Your task to perform on an android device: Do I have any events tomorrow? Image 0: 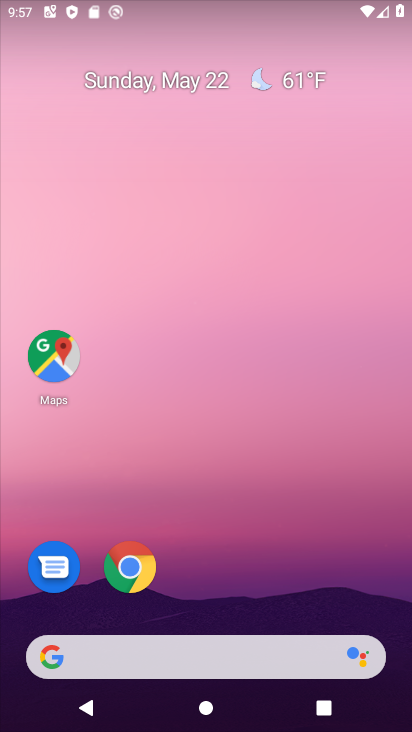
Step 0: drag from (218, 621) to (142, 37)
Your task to perform on an android device: Do I have any events tomorrow? Image 1: 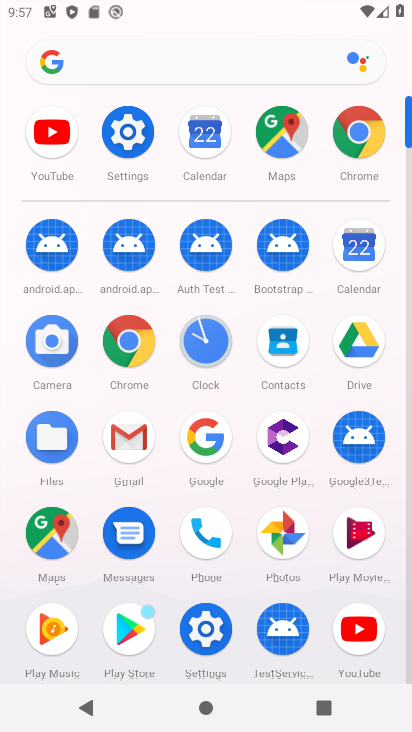
Step 1: click (368, 257)
Your task to perform on an android device: Do I have any events tomorrow? Image 2: 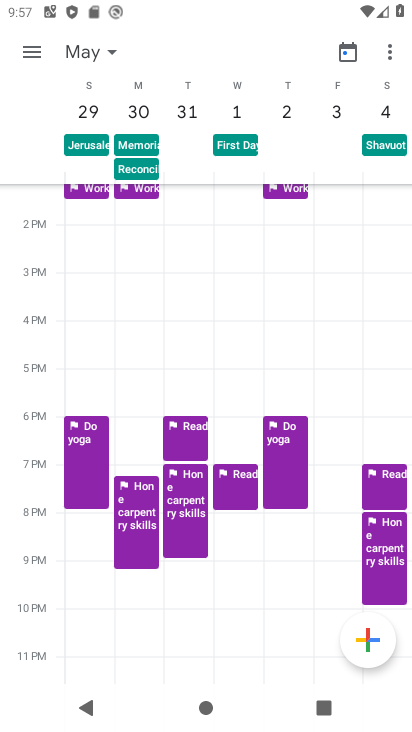
Step 2: click (344, 48)
Your task to perform on an android device: Do I have any events tomorrow? Image 3: 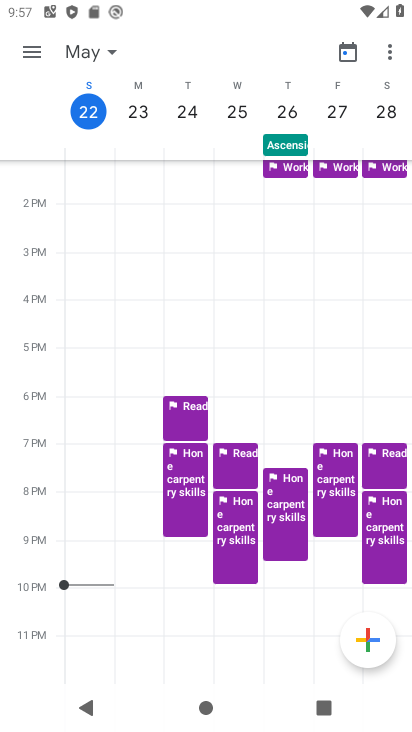
Step 3: click (143, 112)
Your task to perform on an android device: Do I have any events tomorrow? Image 4: 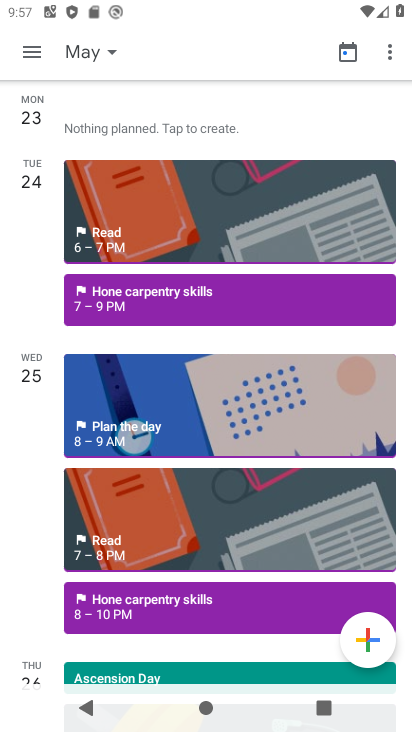
Step 4: task complete